Your task to perform on an android device: install app "Cash App" Image 0: 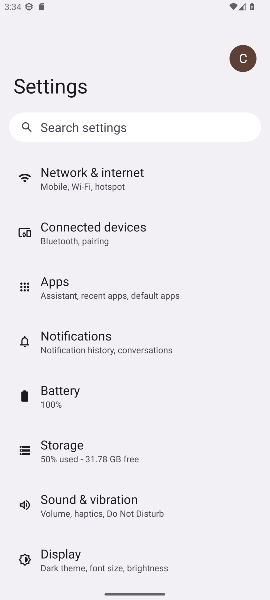
Step 0: press home button
Your task to perform on an android device: install app "Cash App" Image 1: 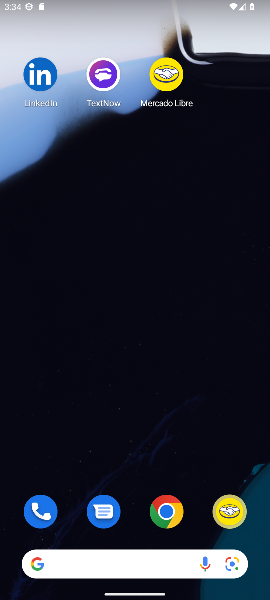
Step 1: drag from (134, 558) to (142, 364)
Your task to perform on an android device: install app "Cash App" Image 2: 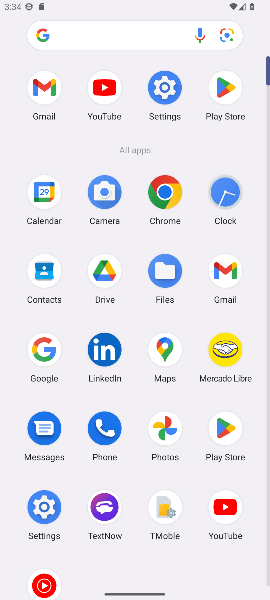
Step 2: click (231, 423)
Your task to perform on an android device: install app "Cash App" Image 3: 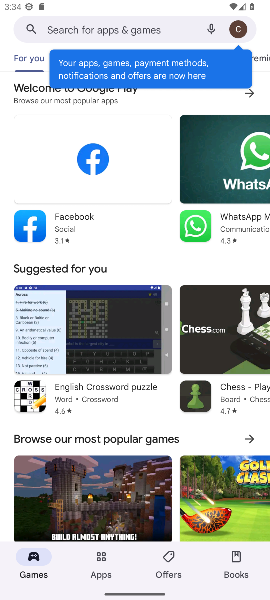
Step 3: click (109, 36)
Your task to perform on an android device: install app "Cash App" Image 4: 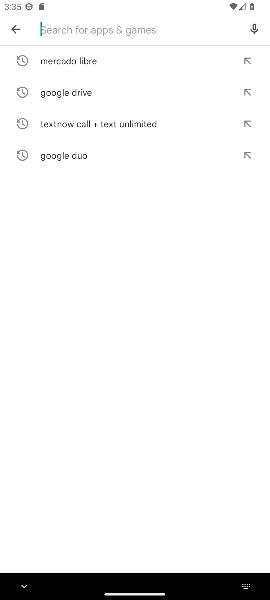
Step 4: type "Cash App"
Your task to perform on an android device: install app "Cash App" Image 5: 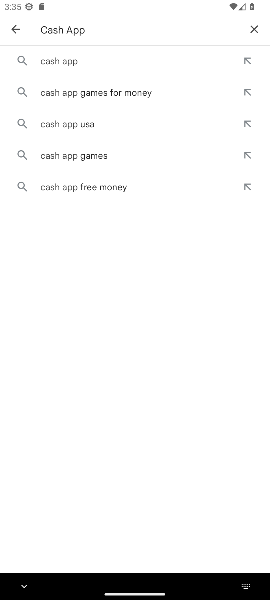
Step 5: click (58, 67)
Your task to perform on an android device: install app "Cash App" Image 6: 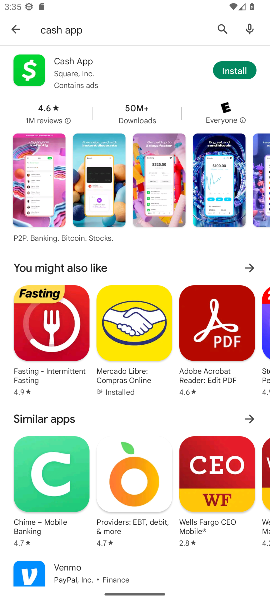
Step 6: click (229, 70)
Your task to perform on an android device: install app "Cash App" Image 7: 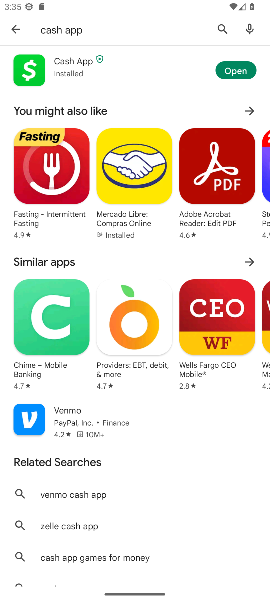
Step 7: click (228, 69)
Your task to perform on an android device: install app "Cash App" Image 8: 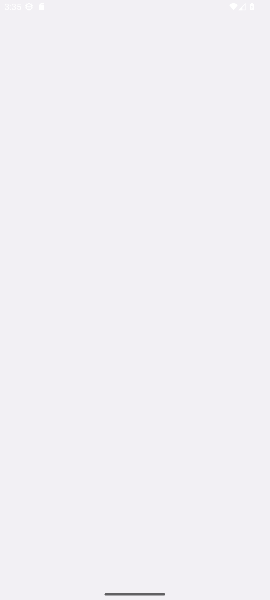
Step 8: task complete